Your task to perform on an android device: Go to CNN.com Image 0: 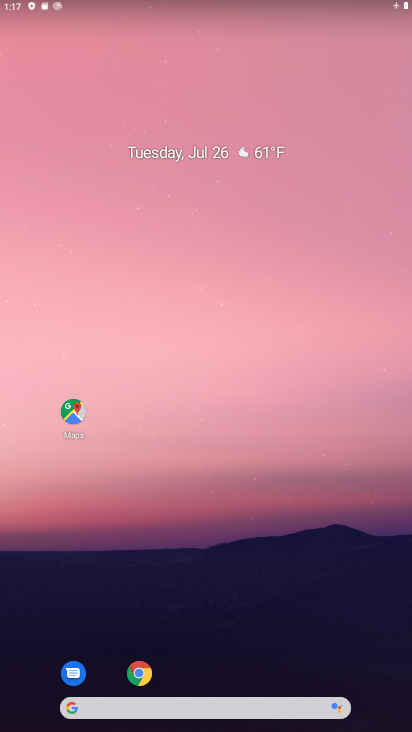
Step 0: drag from (187, 684) to (266, 82)
Your task to perform on an android device: Go to CNN.com Image 1: 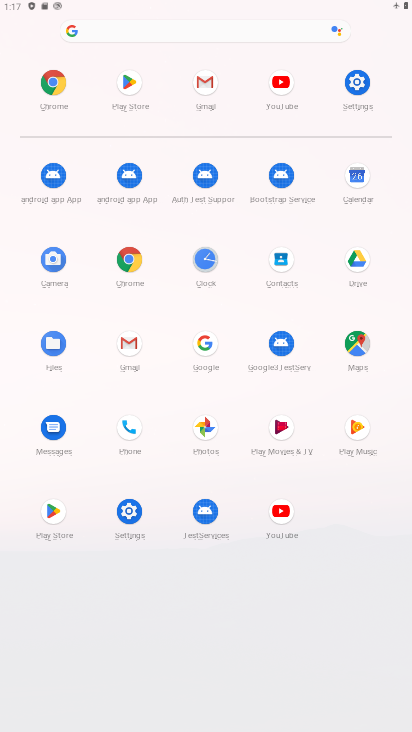
Step 1: click (130, 36)
Your task to perform on an android device: Go to CNN.com Image 2: 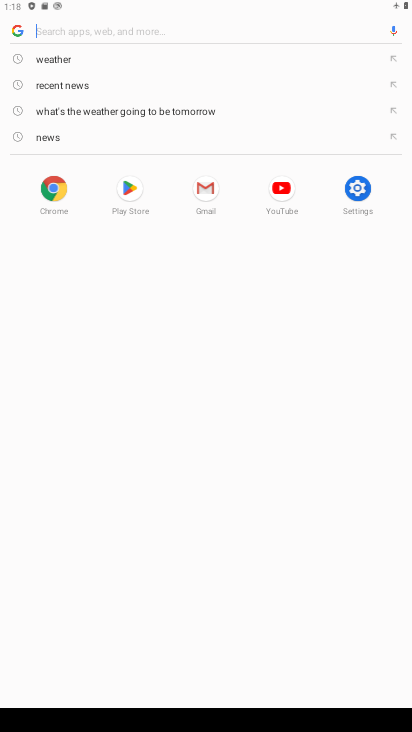
Step 2: type "CNN.com"
Your task to perform on an android device: Go to CNN.com Image 3: 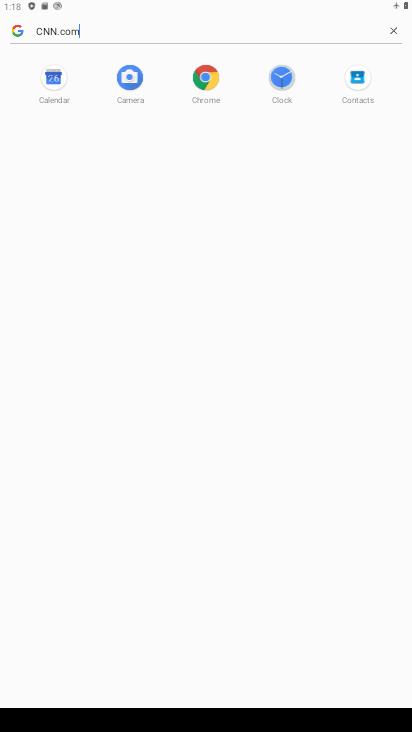
Step 3: type ""
Your task to perform on an android device: Go to CNN.com Image 4: 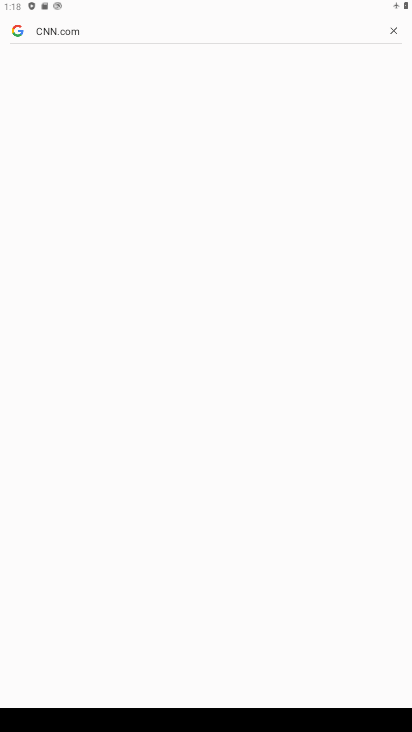
Step 4: task complete